Your task to perform on an android device: find snoozed emails in the gmail app Image 0: 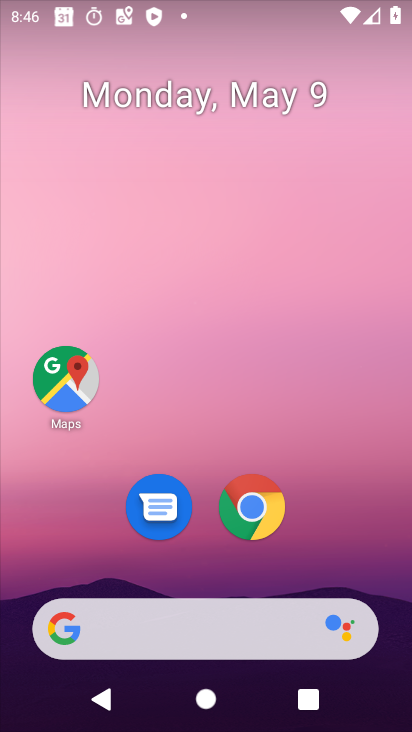
Step 0: drag from (290, 663) to (249, 171)
Your task to perform on an android device: find snoozed emails in the gmail app Image 1: 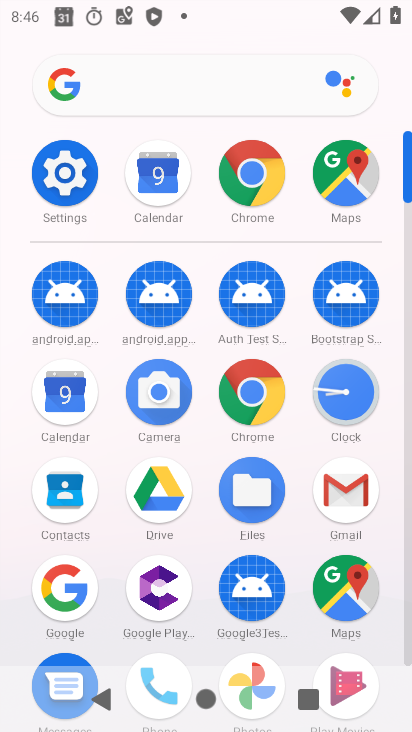
Step 1: click (349, 488)
Your task to perform on an android device: find snoozed emails in the gmail app Image 2: 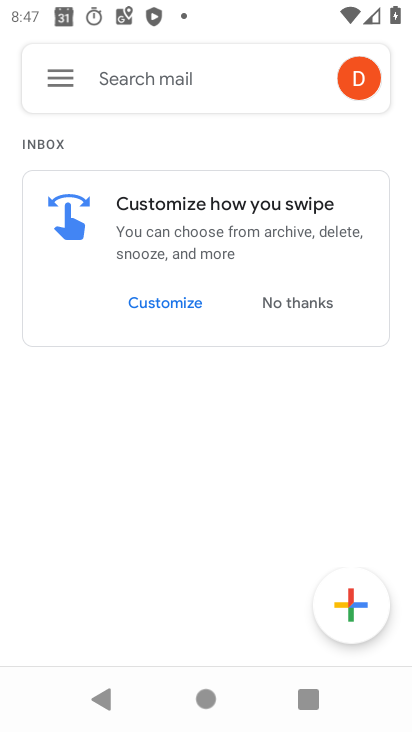
Step 2: click (289, 296)
Your task to perform on an android device: find snoozed emails in the gmail app Image 3: 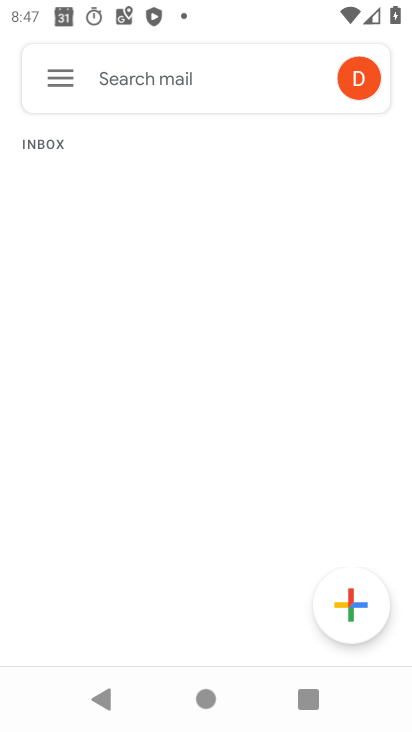
Step 3: click (49, 90)
Your task to perform on an android device: find snoozed emails in the gmail app Image 4: 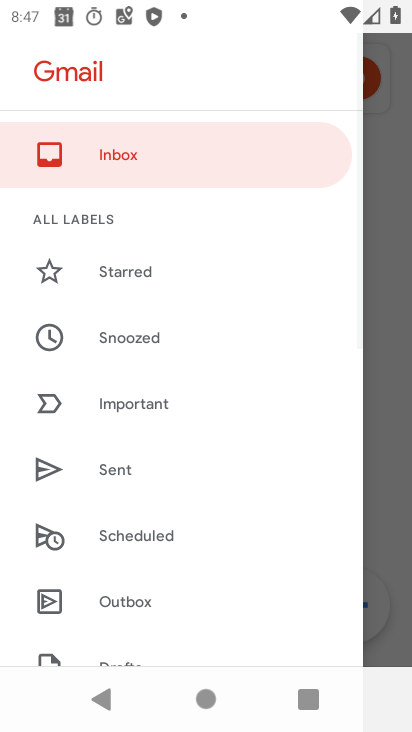
Step 4: drag from (147, 518) to (242, 251)
Your task to perform on an android device: find snoozed emails in the gmail app Image 5: 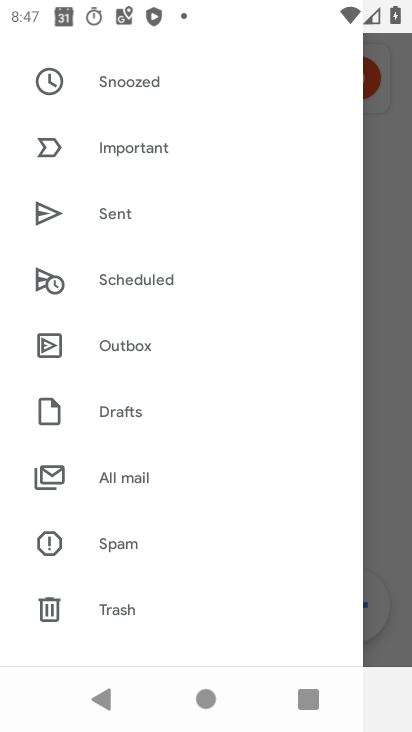
Step 5: click (164, 86)
Your task to perform on an android device: find snoozed emails in the gmail app Image 6: 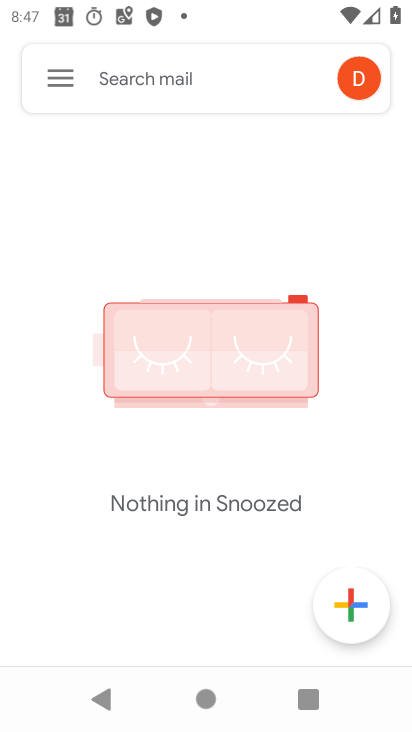
Step 6: task complete